Your task to perform on an android device: Open ESPN.com Image 0: 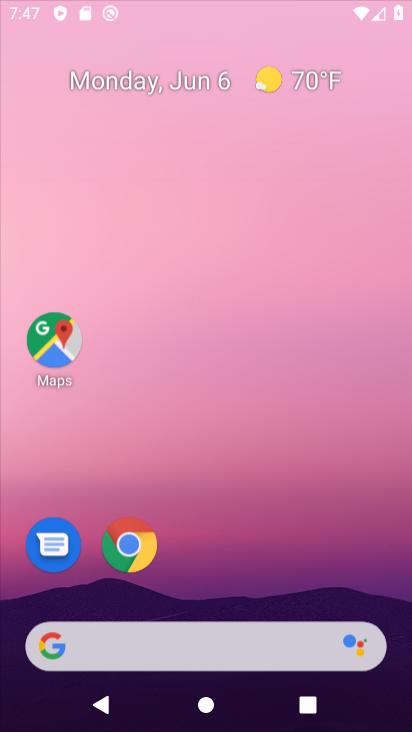
Step 0: click (354, 62)
Your task to perform on an android device: Open ESPN.com Image 1: 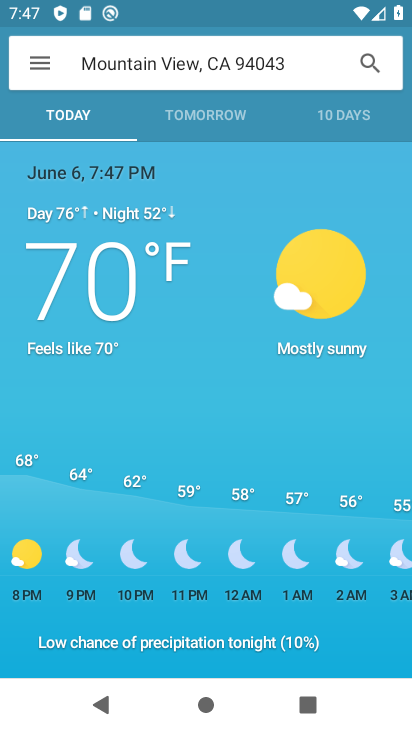
Step 1: press home button
Your task to perform on an android device: Open ESPN.com Image 2: 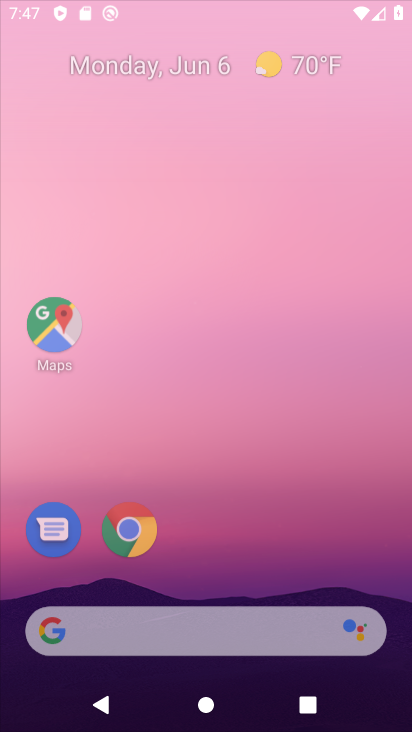
Step 2: drag from (200, 544) to (222, 115)
Your task to perform on an android device: Open ESPN.com Image 3: 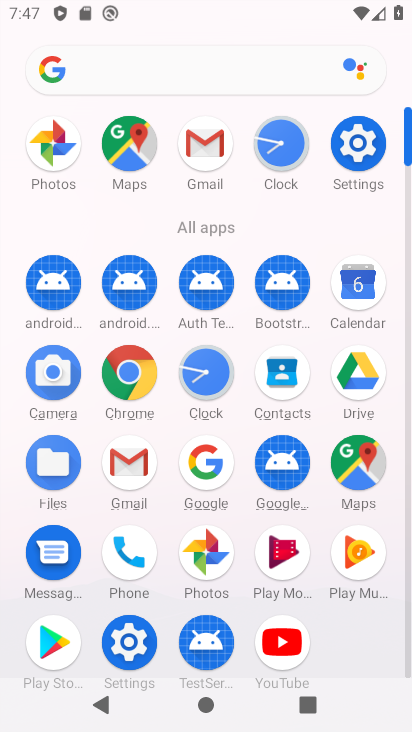
Step 3: click (148, 78)
Your task to perform on an android device: Open ESPN.com Image 4: 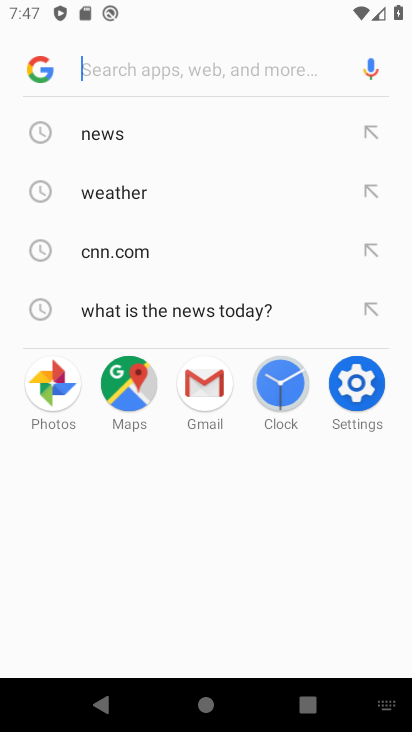
Step 4: type "ESPN.com"
Your task to perform on an android device: Open ESPN.com Image 5: 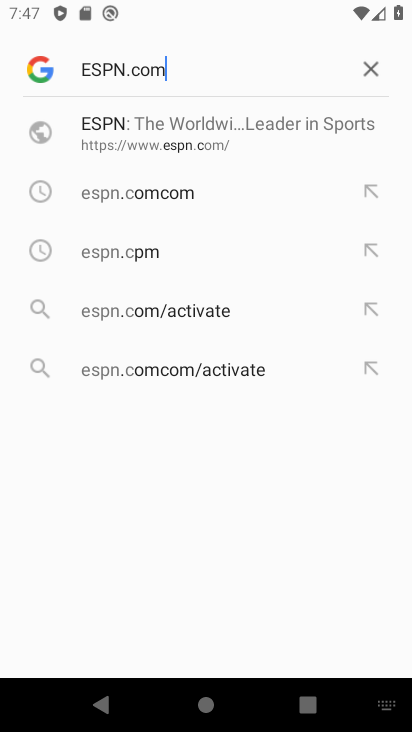
Step 5: type ""
Your task to perform on an android device: Open ESPN.com Image 6: 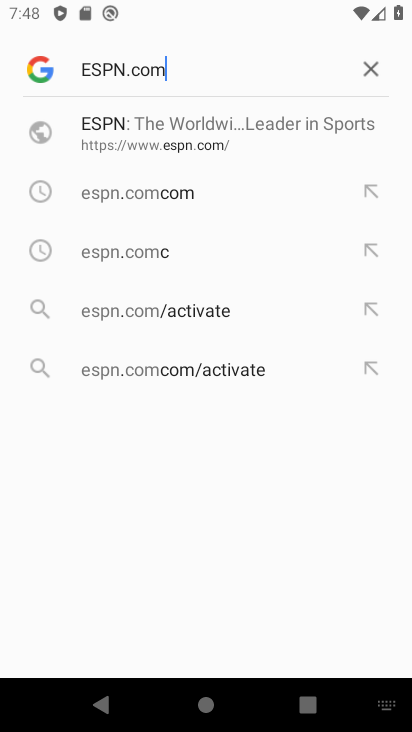
Step 6: click (137, 146)
Your task to perform on an android device: Open ESPN.com Image 7: 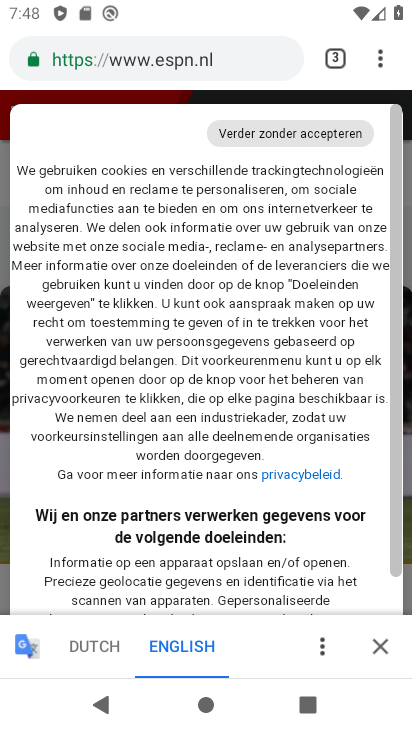
Step 7: task complete